Your task to perform on an android device: check out phone information Image 0: 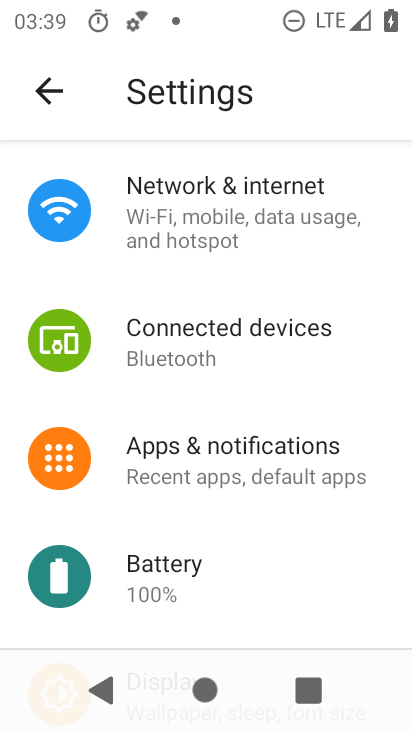
Step 0: press home button
Your task to perform on an android device: check out phone information Image 1: 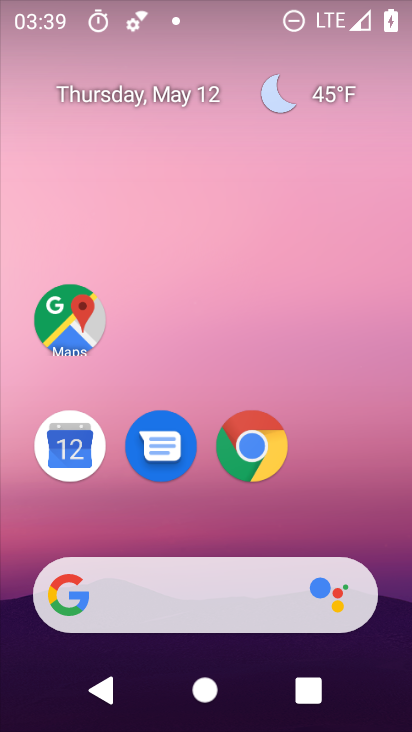
Step 1: drag from (190, 547) to (219, 174)
Your task to perform on an android device: check out phone information Image 2: 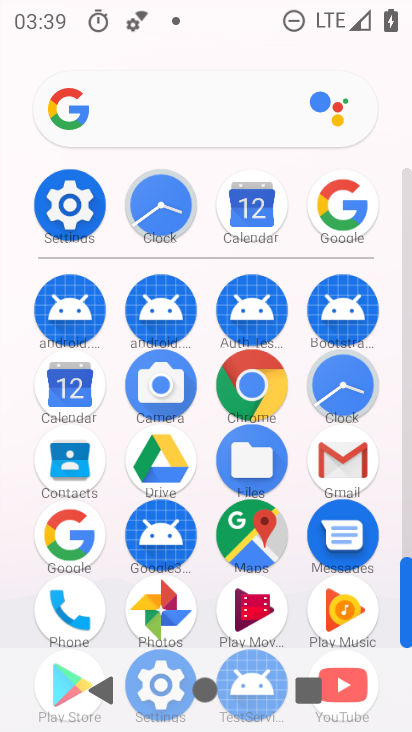
Step 2: click (61, 226)
Your task to perform on an android device: check out phone information Image 3: 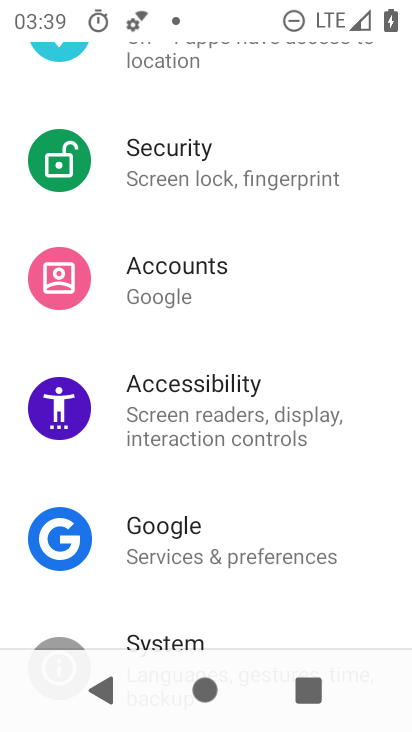
Step 3: drag from (164, 528) to (207, 205)
Your task to perform on an android device: check out phone information Image 4: 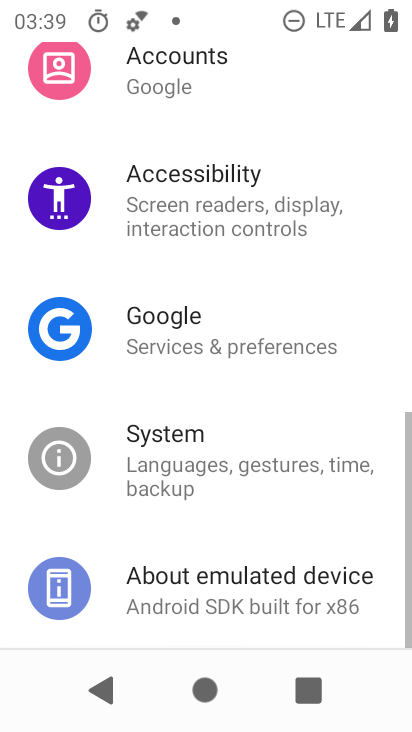
Step 4: click (231, 109)
Your task to perform on an android device: check out phone information Image 5: 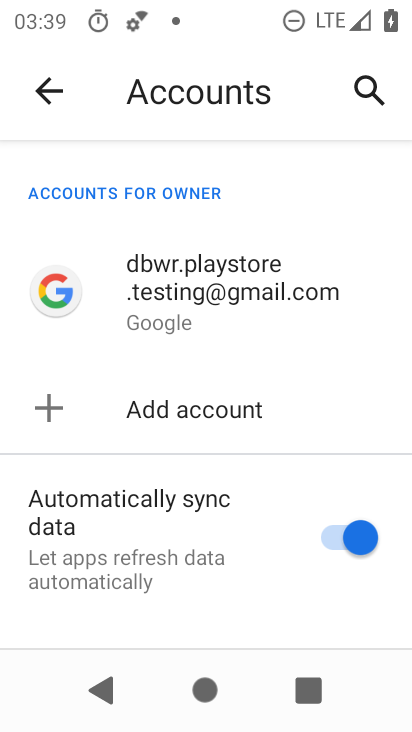
Step 5: click (47, 100)
Your task to perform on an android device: check out phone information Image 6: 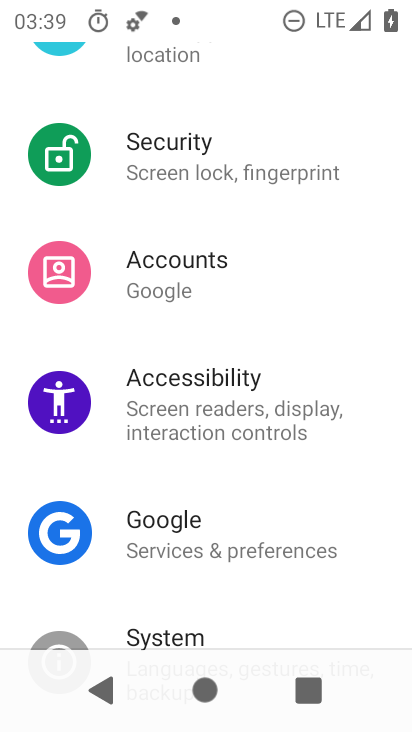
Step 6: drag from (220, 572) to (213, 172)
Your task to perform on an android device: check out phone information Image 7: 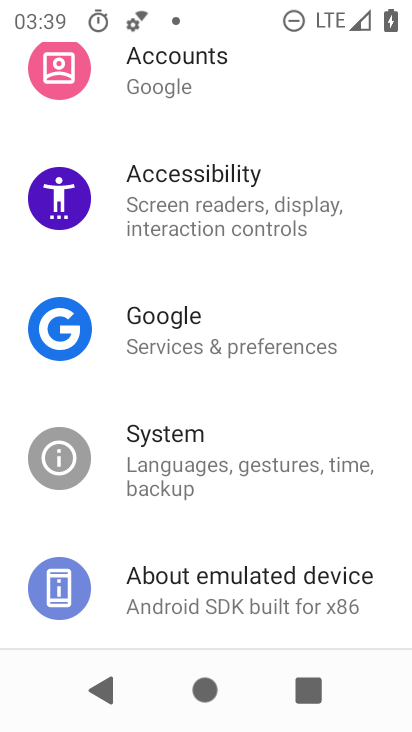
Step 7: click (200, 563)
Your task to perform on an android device: check out phone information Image 8: 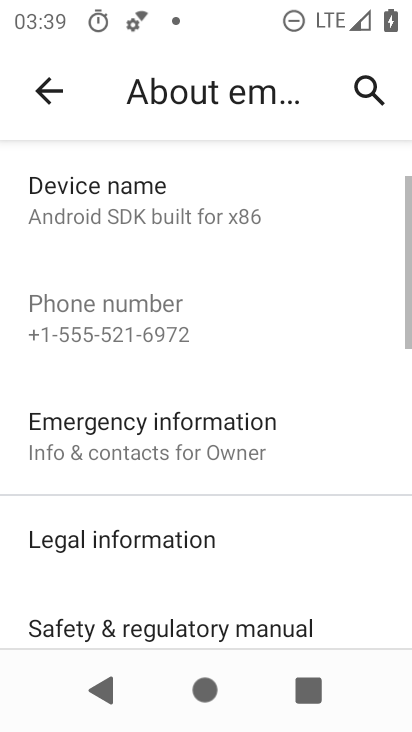
Step 8: task complete